Your task to perform on an android device: open app "Google Photos" (install if not already installed) Image 0: 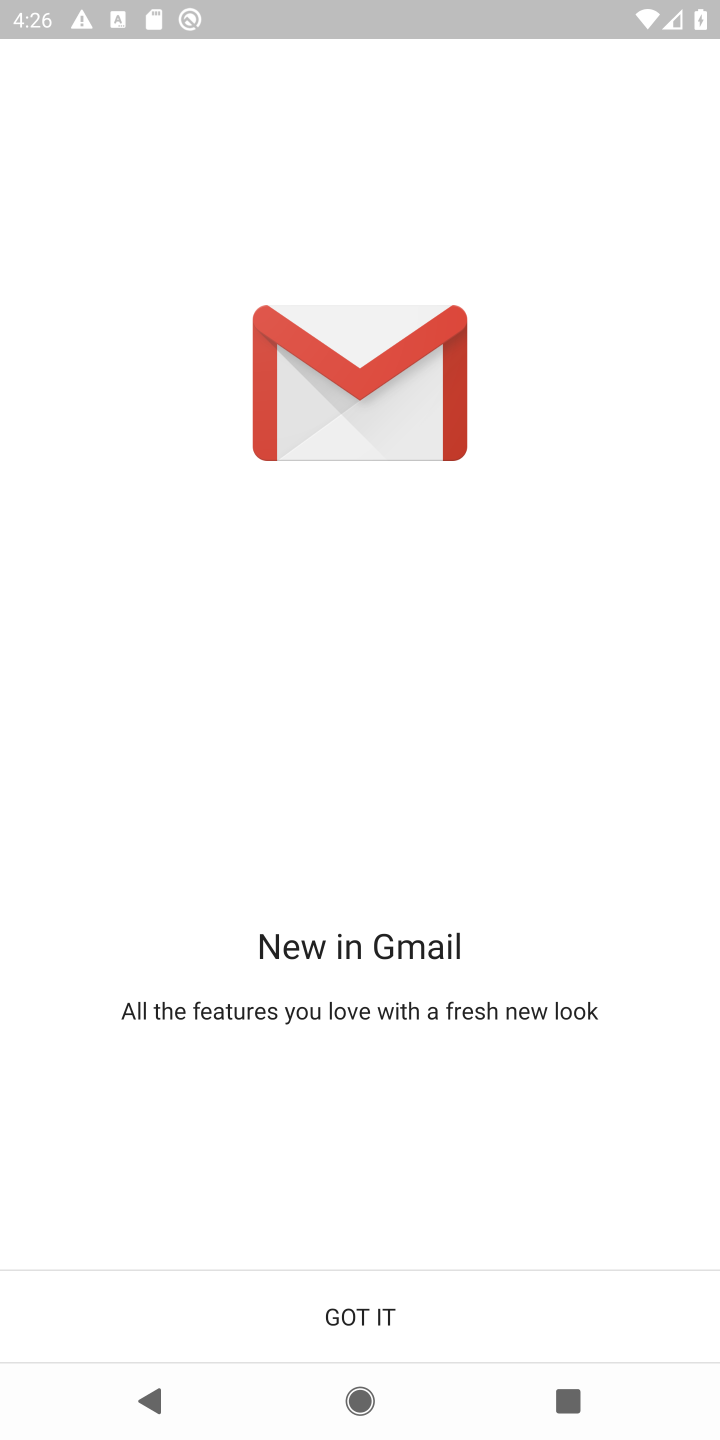
Step 0: press home button
Your task to perform on an android device: open app "Google Photos" (install if not already installed) Image 1: 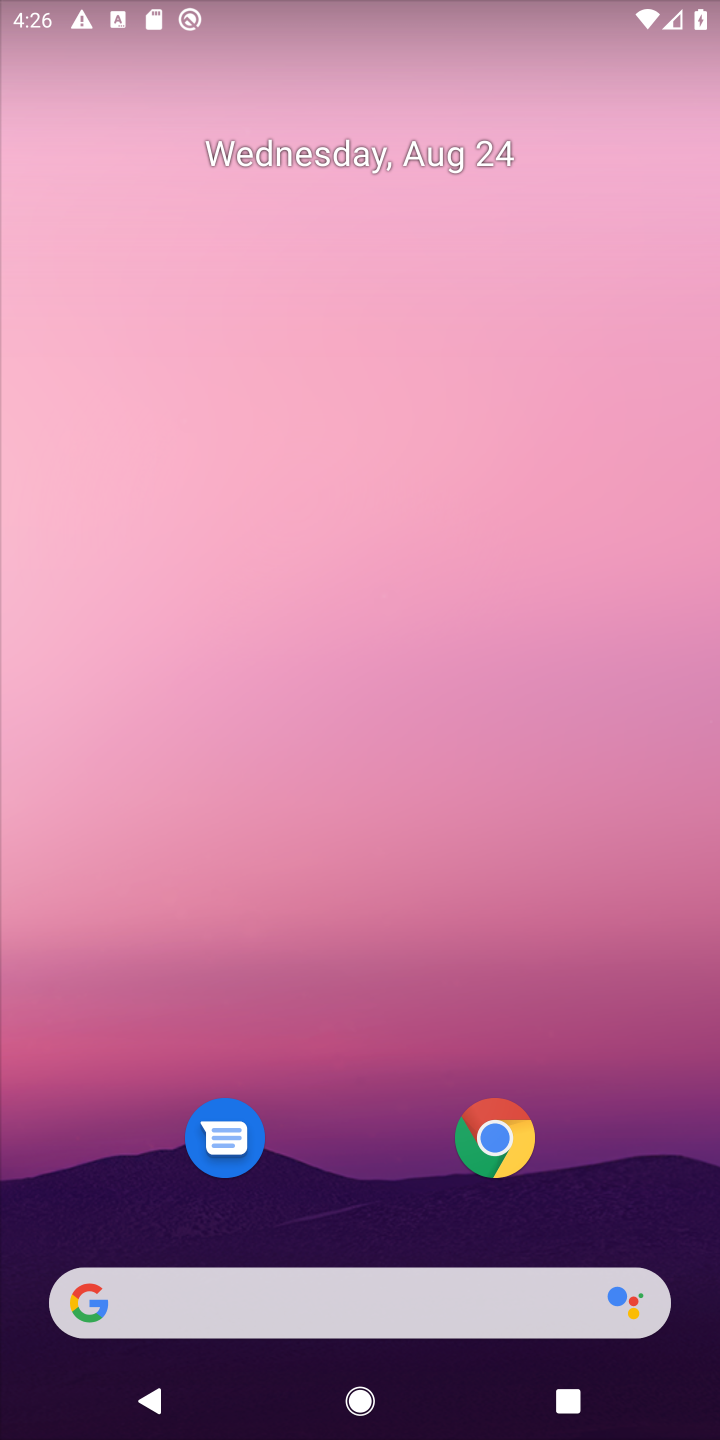
Step 1: drag from (429, 760) to (374, 102)
Your task to perform on an android device: open app "Google Photos" (install if not already installed) Image 2: 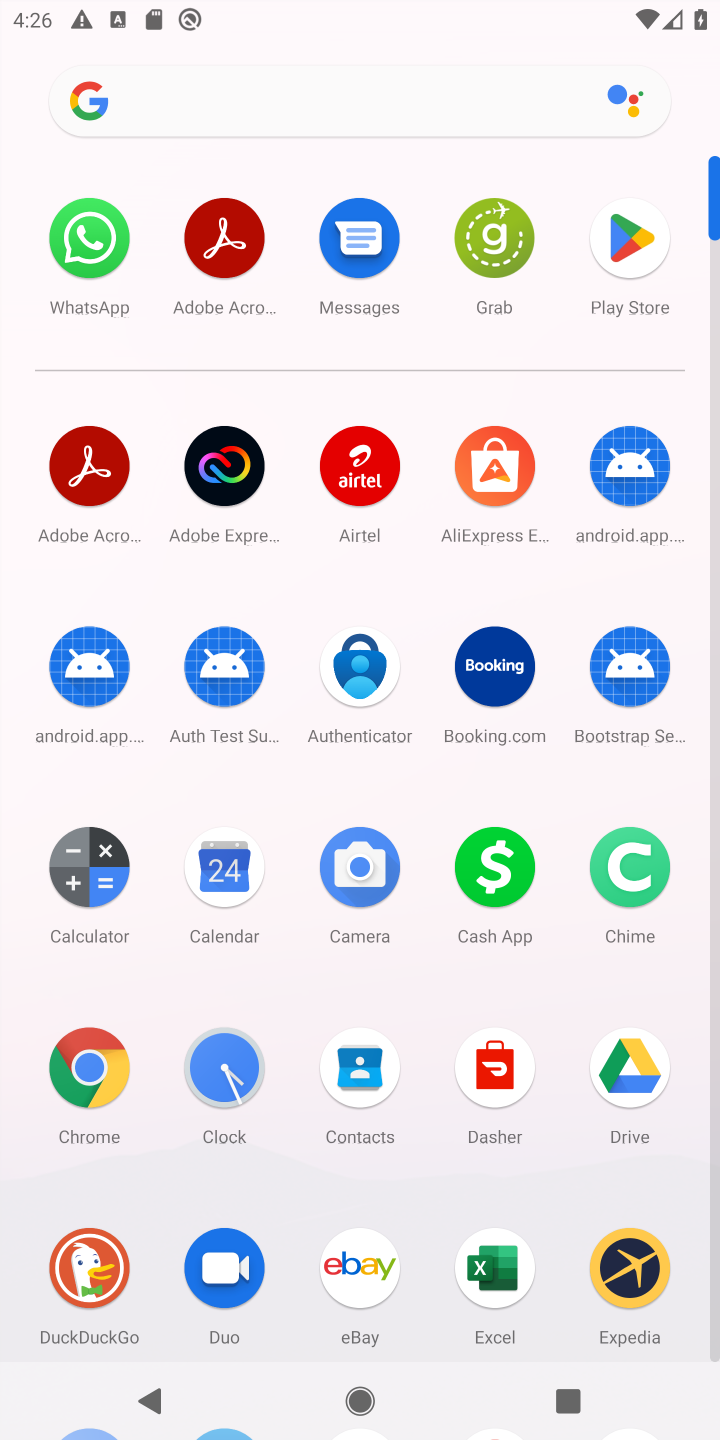
Step 2: click (623, 236)
Your task to perform on an android device: open app "Google Photos" (install if not already installed) Image 3: 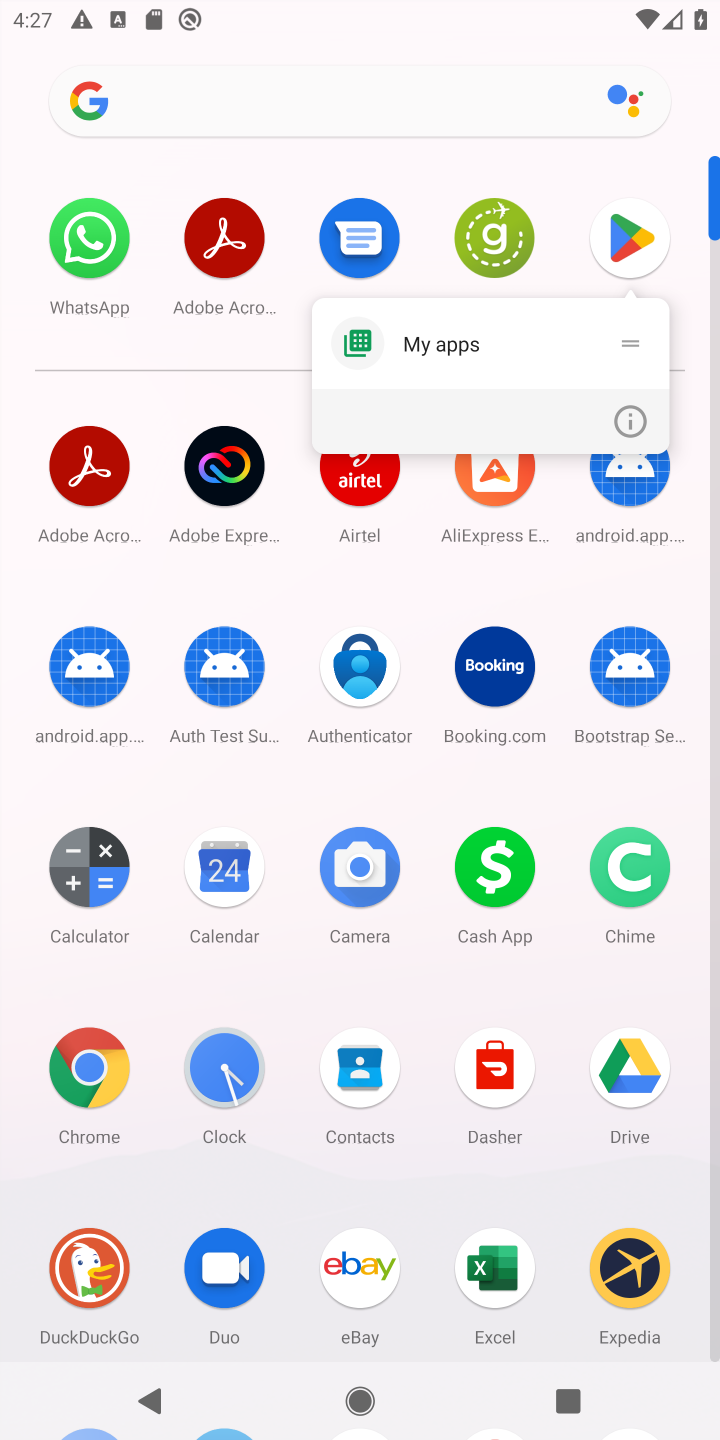
Step 3: click (632, 235)
Your task to perform on an android device: open app "Google Photos" (install if not already installed) Image 4: 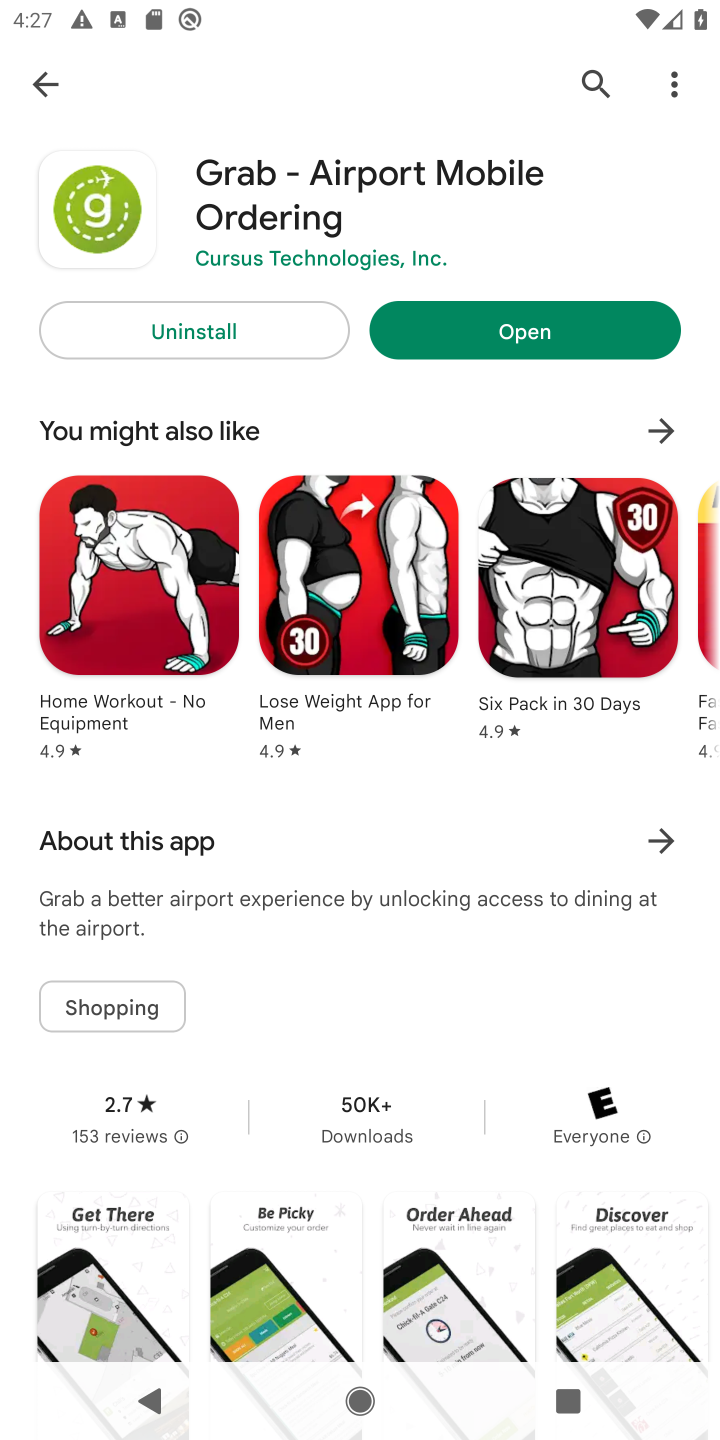
Step 4: click (593, 79)
Your task to perform on an android device: open app "Google Photos" (install if not already installed) Image 5: 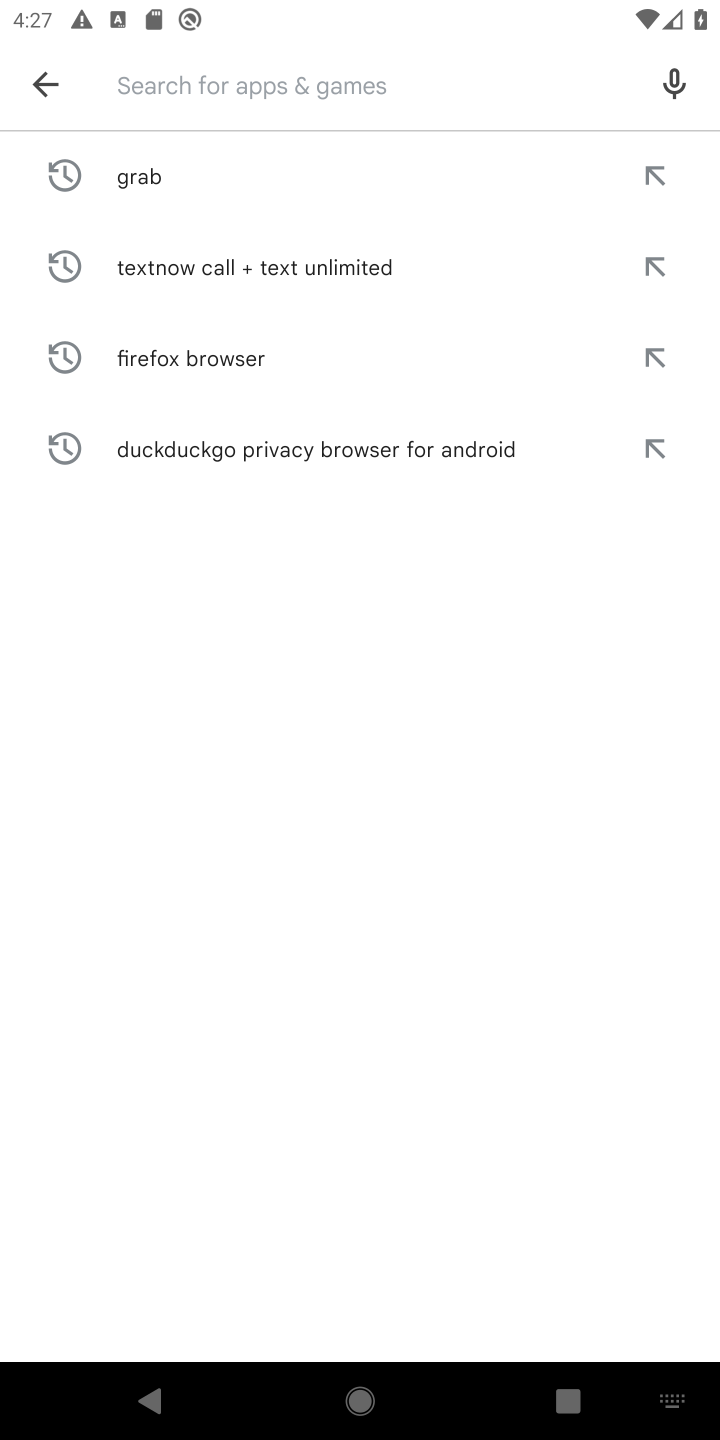
Step 5: type "Google Photos"
Your task to perform on an android device: open app "Google Photos" (install if not already installed) Image 6: 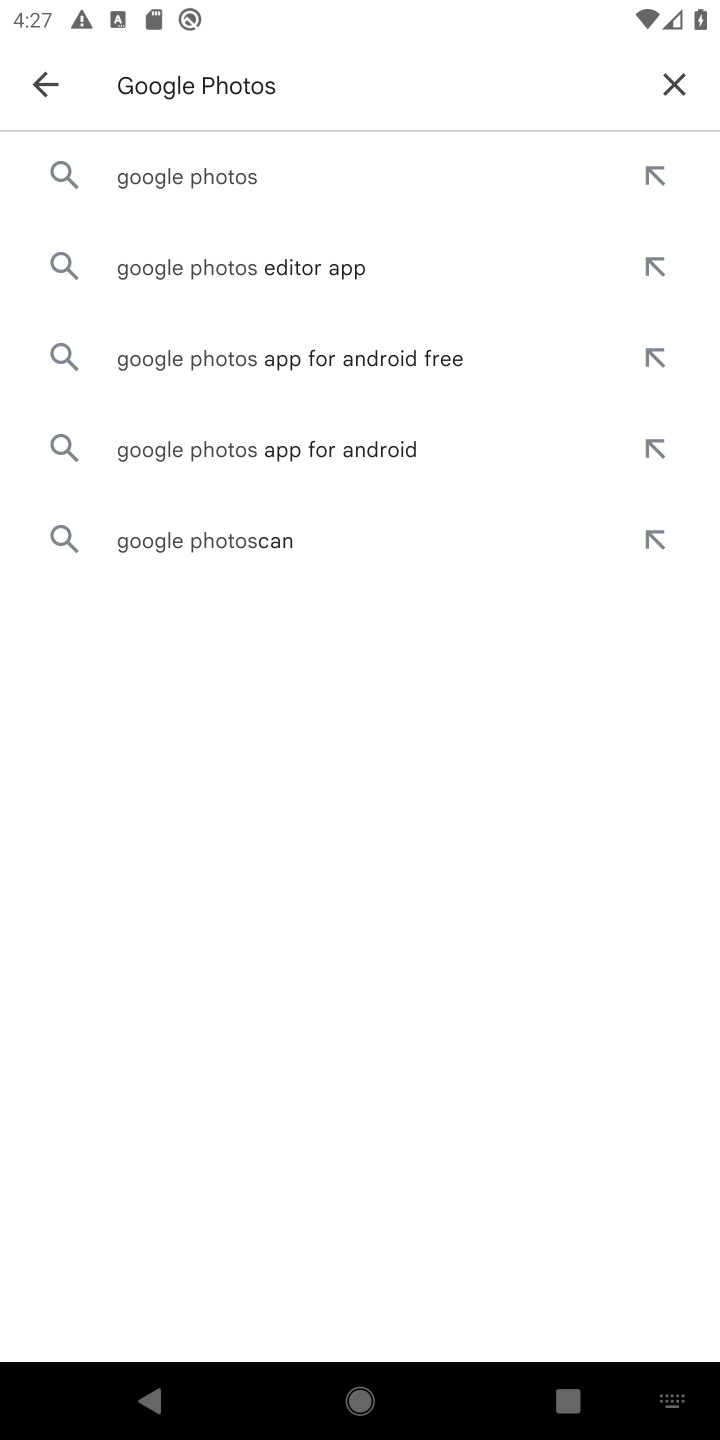
Step 6: click (142, 184)
Your task to perform on an android device: open app "Google Photos" (install if not already installed) Image 7: 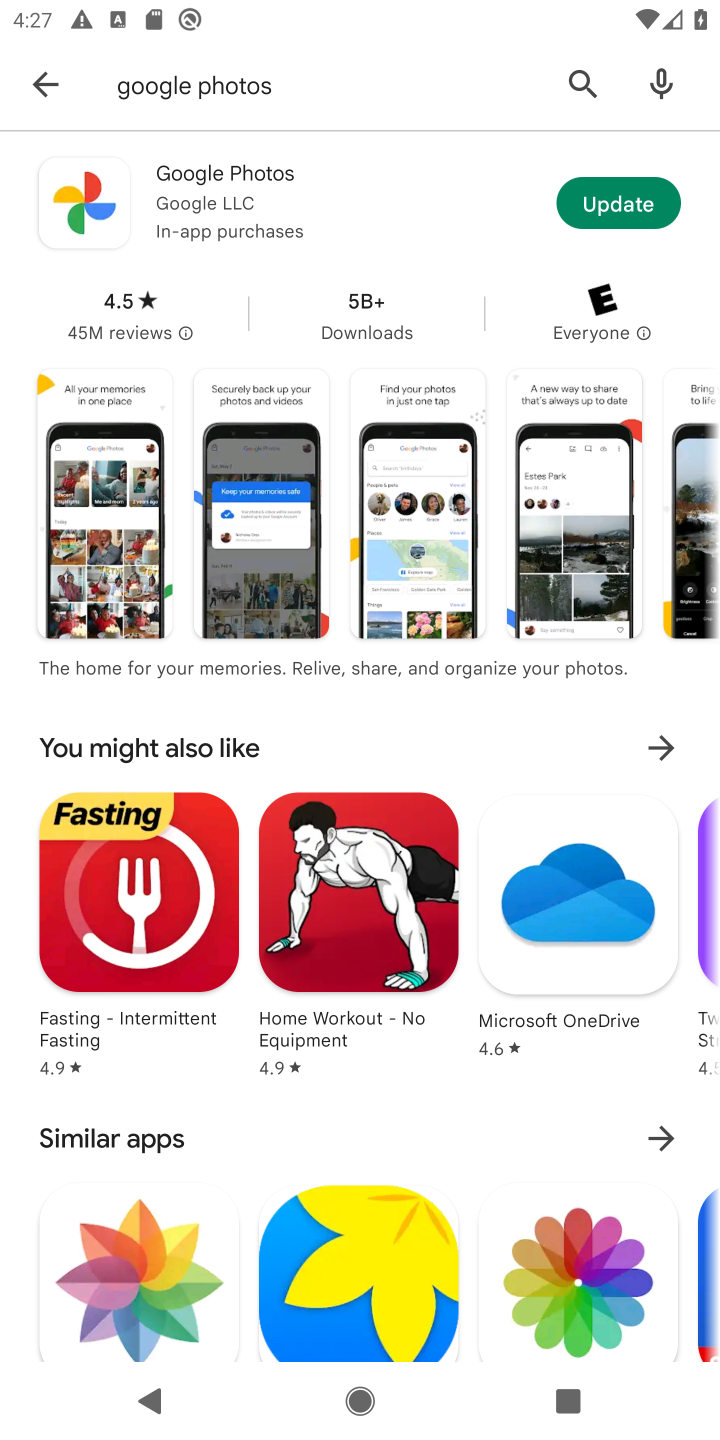
Step 7: click (208, 214)
Your task to perform on an android device: open app "Google Photos" (install if not already installed) Image 8: 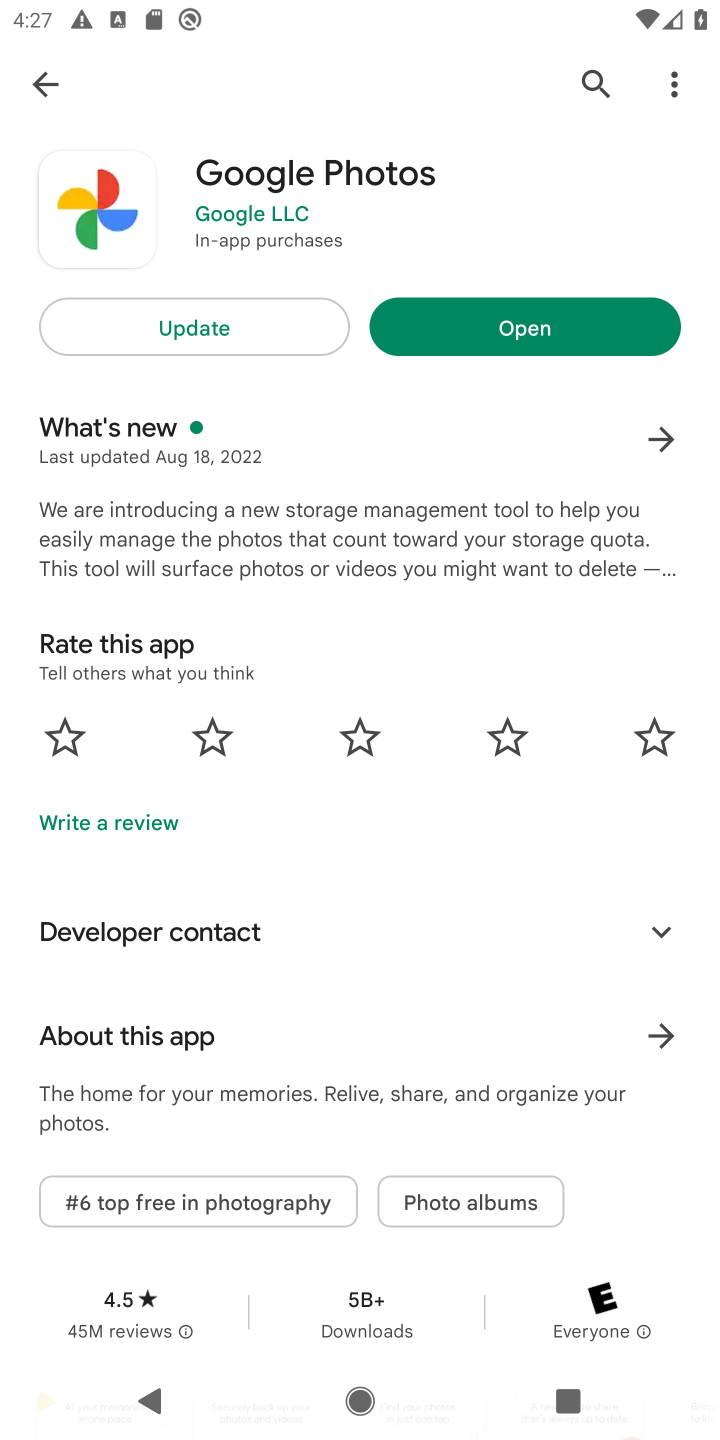
Step 8: click (544, 325)
Your task to perform on an android device: open app "Google Photos" (install if not already installed) Image 9: 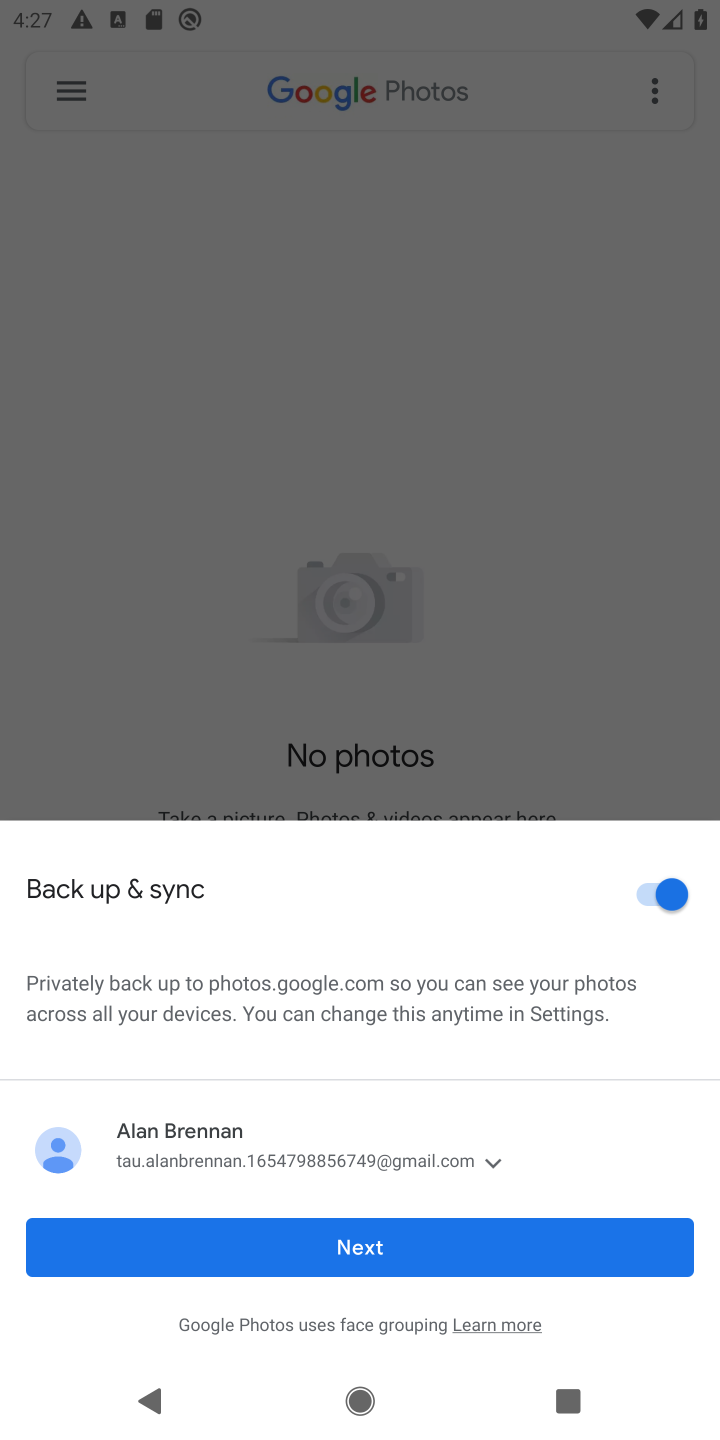
Step 9: task complete